Your task to perform on an android device: empty trash in google photos Image 0: 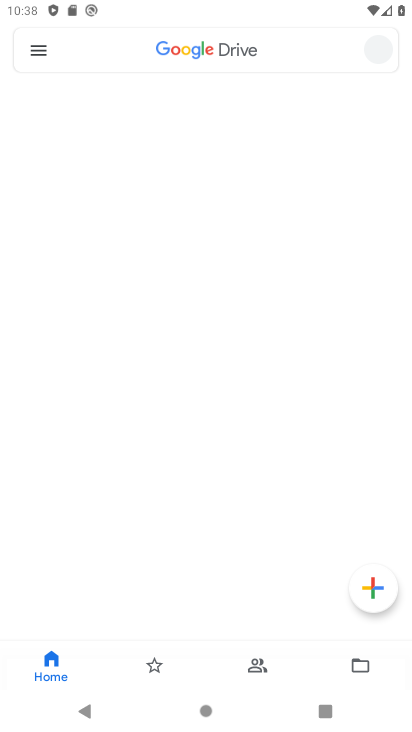
Step 0: click (131, 585)
Your task to perform on an android device: empty trash in google photos Image 1: 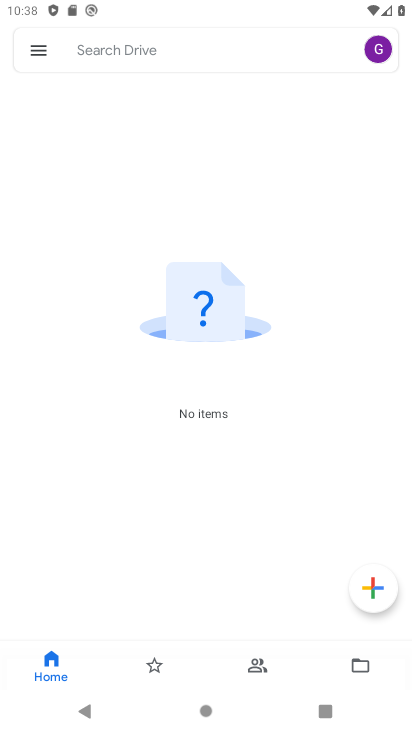
Step 1: press home button
Your task to perform on an android device: empty trash in google photos Image 2: 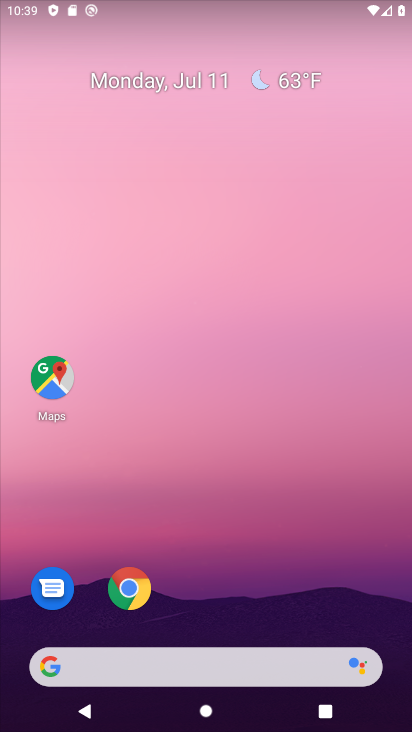
Step 2: drag from (238, 730) to (228, 163)
Your task to perform on an android device: empty trash in google photos Image 3: 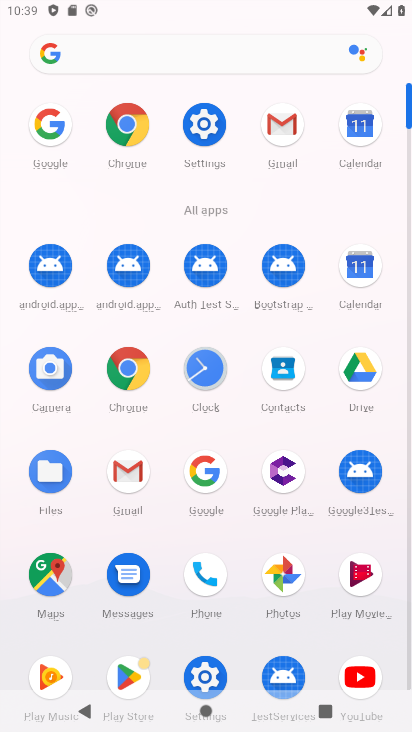
Step 3: click (280, 572)
Your task to perform on an android device: empty trash in google photos Image 4: 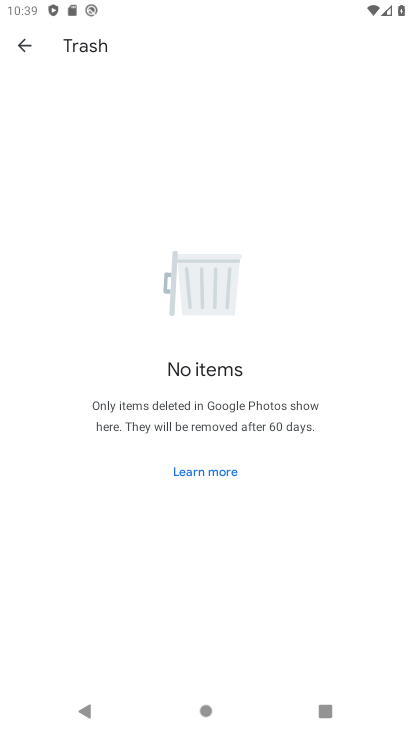
Step 4: task complete